Your task to perform on an android device: allow notifications from all sites in the chrome app Image 0: 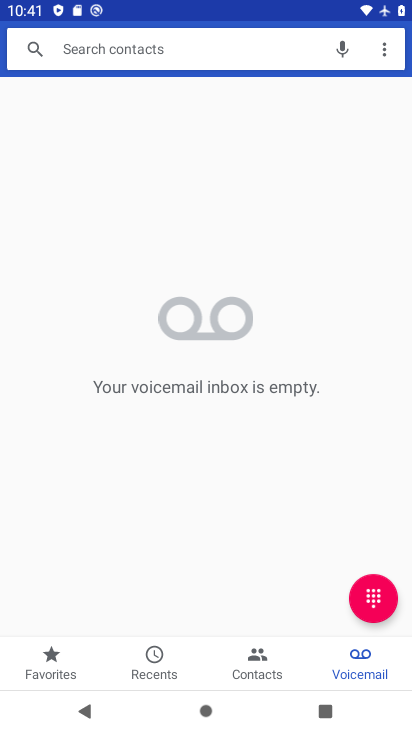
Step 0: press home button
Your task to perform on an android device: allow notifications from all sites in the chrome app Image 1: 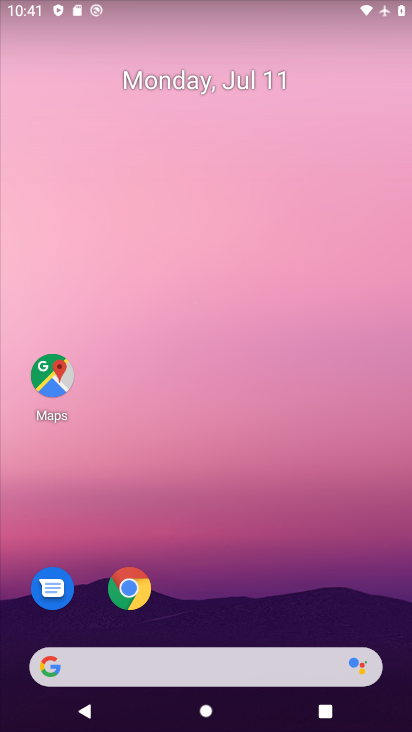
Step 1: click (128, 589)
Your task to perform on an android device: allow notifications from all sites in the chrome app Image 2: 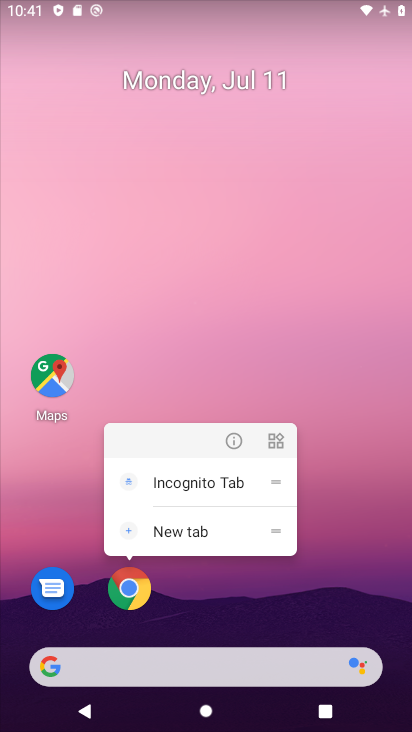
Step 2: click (126, 601)
Your task to perform on an android device: allow notifications from all sites in the chrome app Image 3: 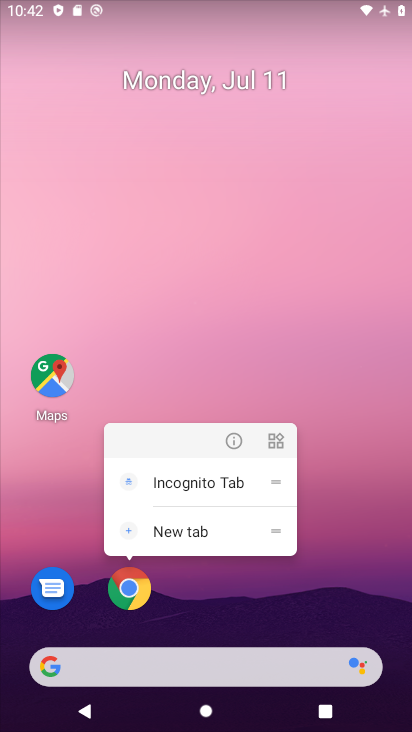
Step 3: click (130, 590)
Your task to perform on an android device: allow notifications from all sites in the chrome app Image 4: 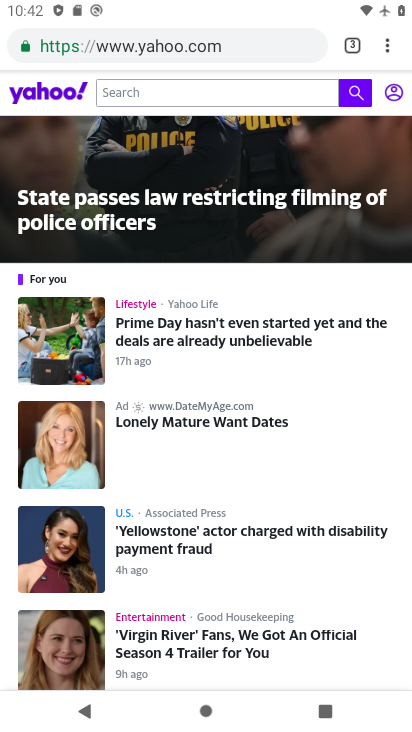
Step 4: drag from (392, 45) to (260, 556)
Your task to perform on an android device: allow notifications from all sites in the chrome app Image 5: 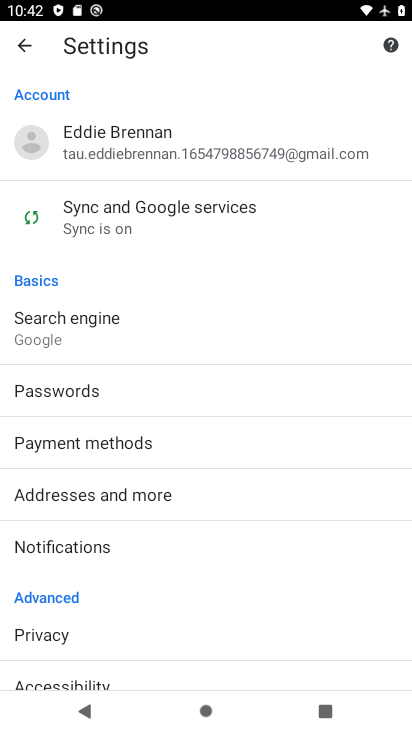
Step 5: drag from (149, 588) to (199, 121)
Your task to perform on an android device: allow notifications from all sites in the chrome app Image 6: 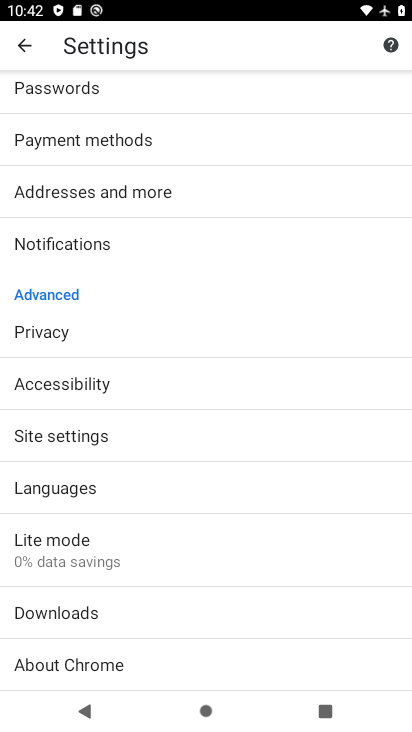
Step 6: click (78, 441)
Your task to perform on an android device: allow notifications from all sites in the chrome app Image 7: 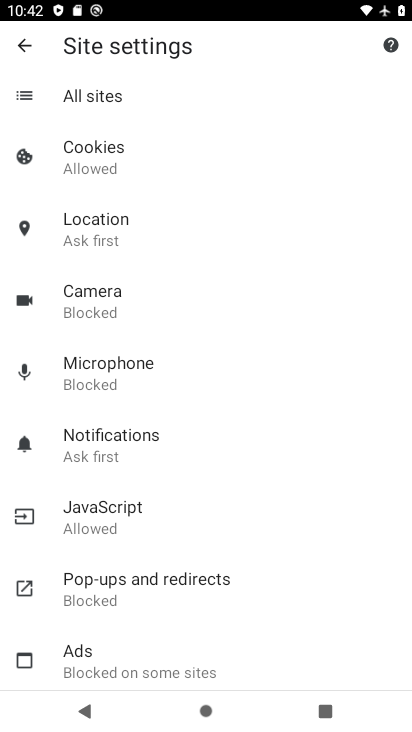
Step 7: click (113, 442)
Your task to perform on an android device: allow notifications from all sites in the chrome app Image 8: 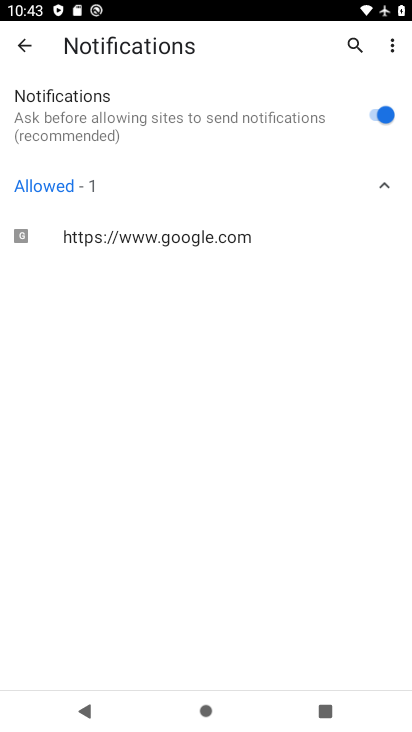
Step 8: task complete